Your task to perform on an android device: Open Google Maps Image 0: 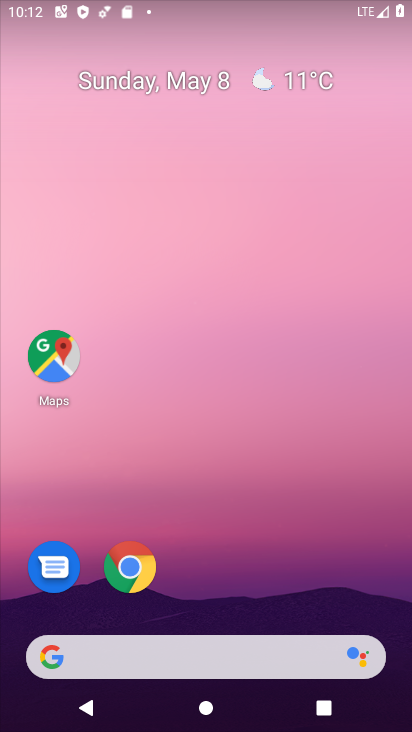
Step 0: click (62, 349)
Your task to perform on an android device: Open Google Maps Image 1: 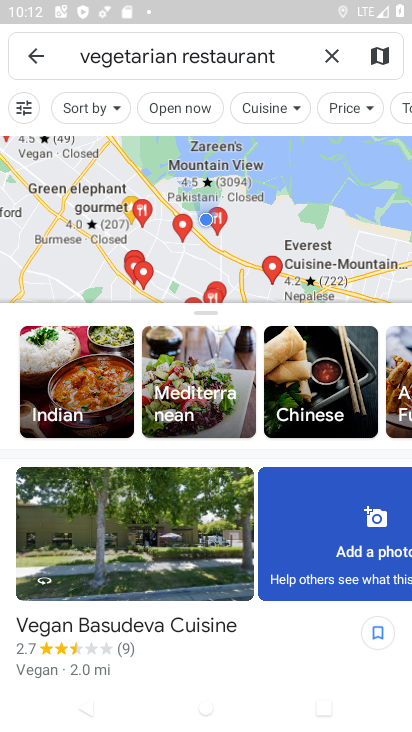
Step 1: task complete